Your task to perform on an android device: change the upload size in google photos Image 0: 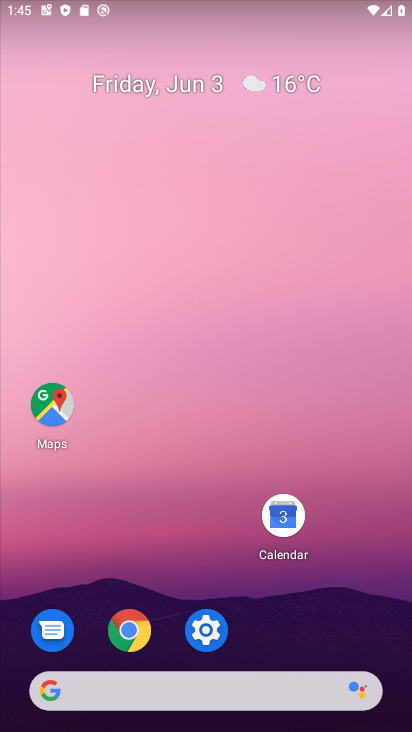
Step 0: drag from (235, 704) to (182, 155)
Your task to perform on an android device: change the upload size in google photos Image 1: 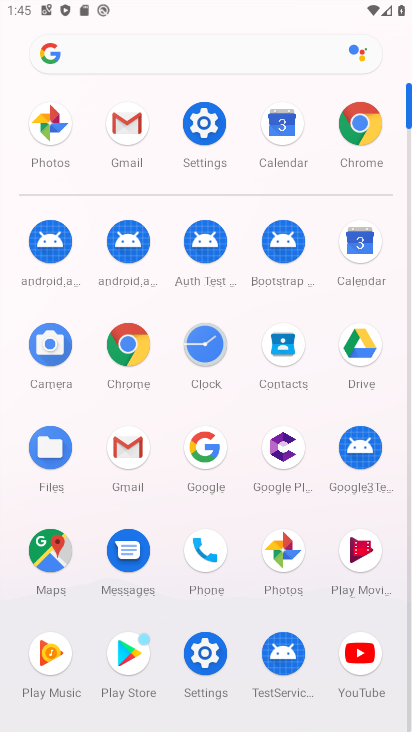
Step 1: click (46, 130)
Your task to perform on an android device: change the upload size in google photos Image 2: 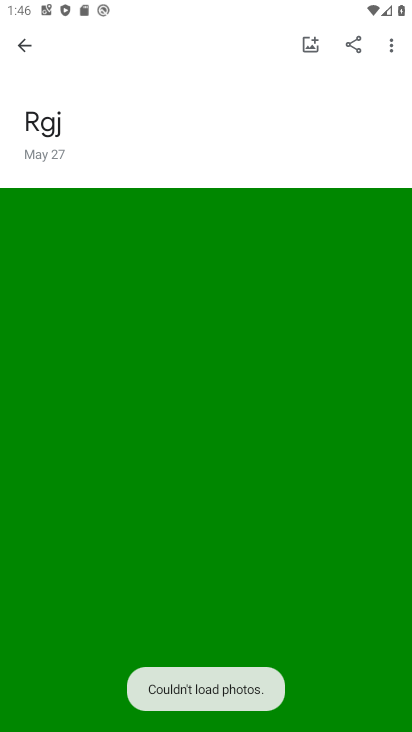
Step 2: click (23, 39)
Your task to perform on an android device: change the upload size in google photos Image 3: 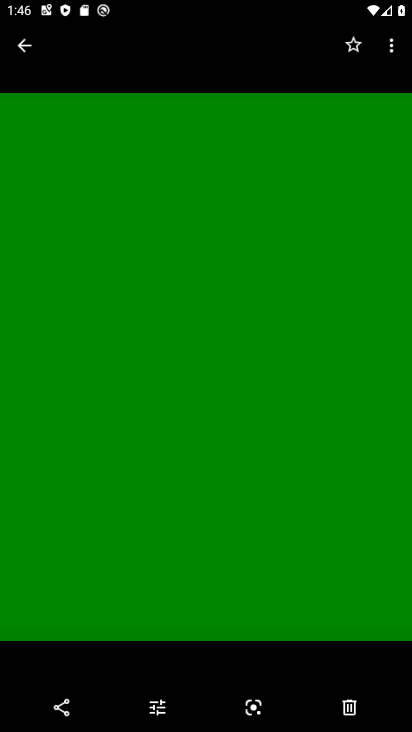
Step 3: click (32, 55)
Your task to perform on an android device: change the upload size in google photos Image 4: 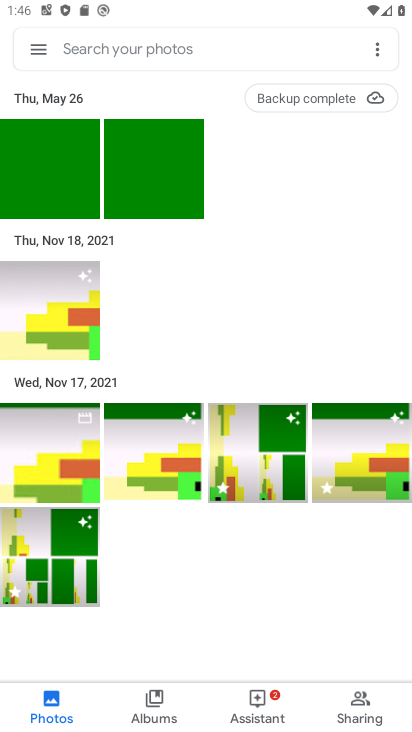
Step 4: click (26, 50)
Your task to perform on an android device: change the upload size in google photos Image 5: 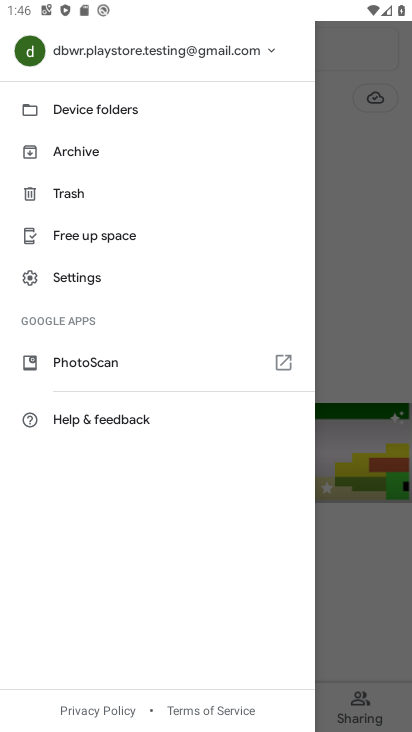
Step 5: click (66, 277)
Your task to perform on an android device: change the upload size in google photos Image 6: 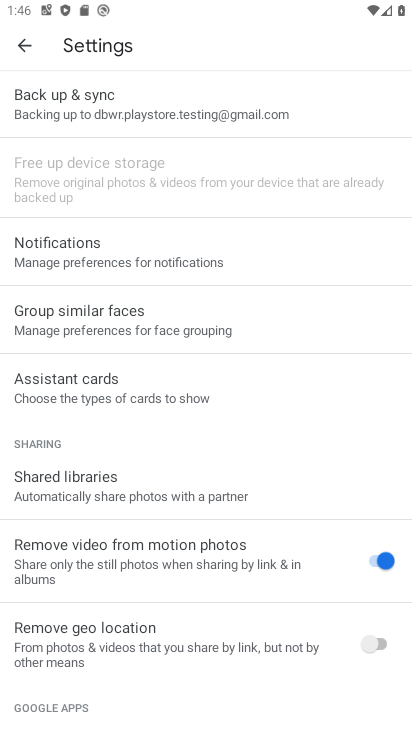
Step 6: click (93, 113)
Your task to perform on an android device: change the upload size in google photos Image 7: 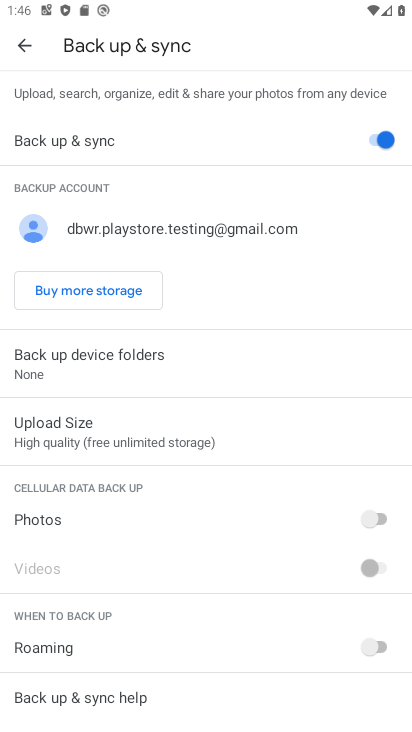
Step 7: click (126, 441)
Your task to perform on an android device: change the upload size in google photos Image 8: 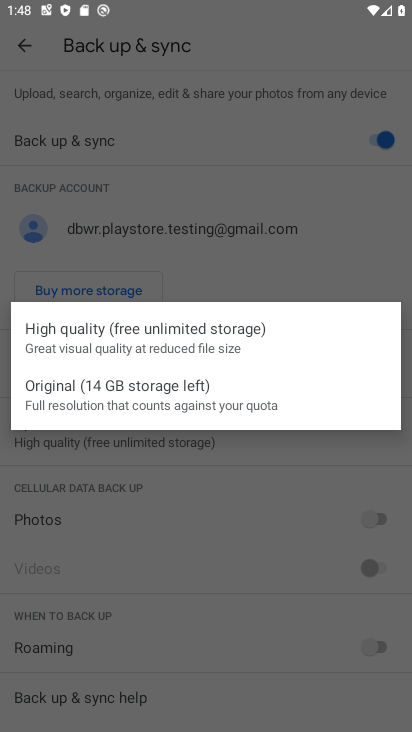
Step 8: press home button
Your task to perform on an android device: change the upload size in google photos Image 9: 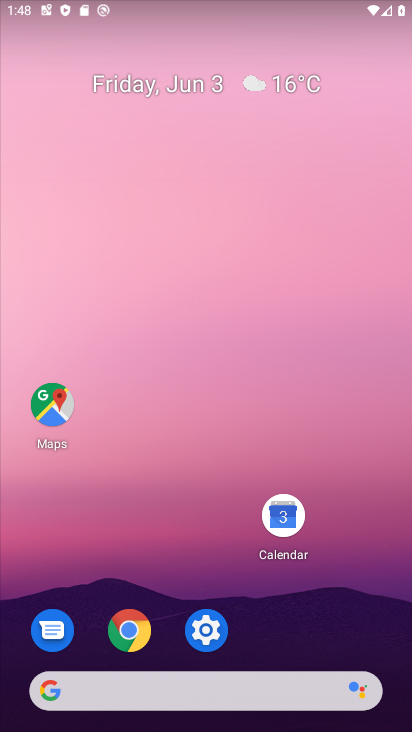
Step 9: drag from (209, 720) to (260, 302)
Your task to perform on an android device: change the upload size in google photos Image 10: 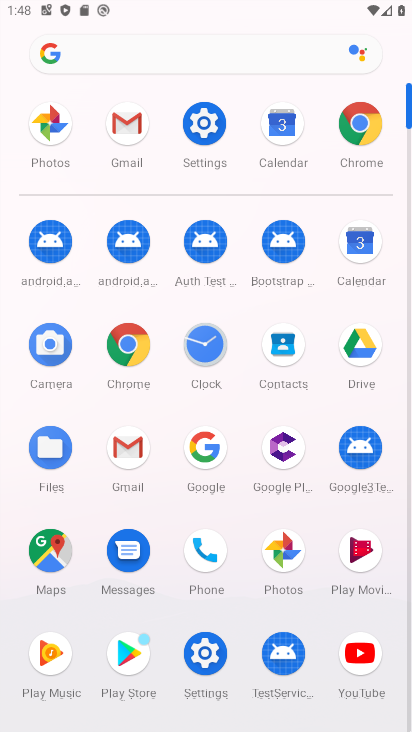
Step 10: click (270, 545)
Your task to perform on an android device: change the upload size in google photos Image 11: 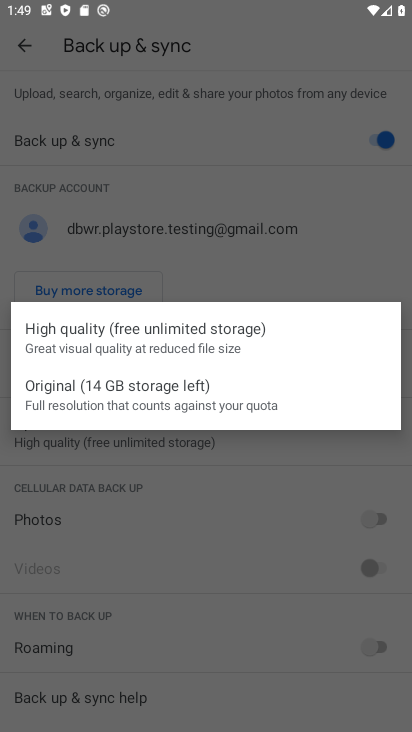
Step 11: task complete